Your task to perform on an android device: turn off translation in the chrome app Image 0: 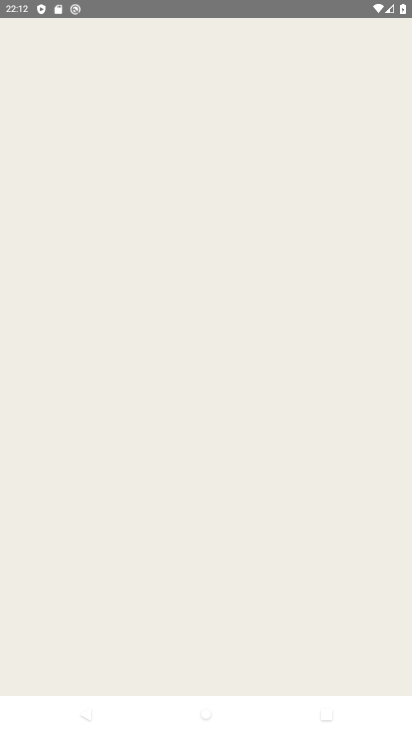
Step 0: press home button
Your task to perform on an android device: turn off translation in the chrome app Image 1: 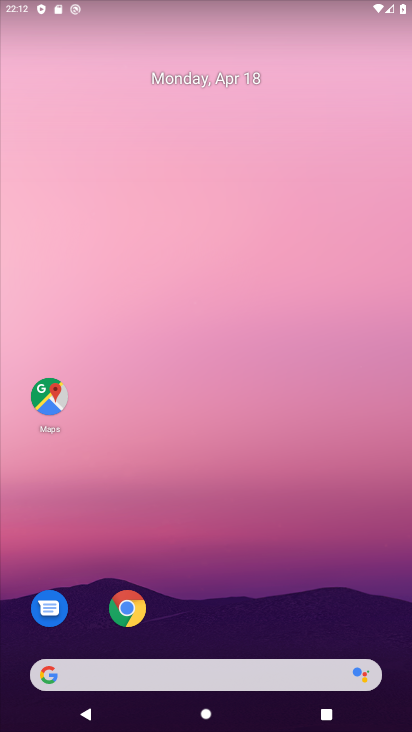
Step 1: click (125, 610)
Your task to perform on an android device: turn off translation in the chrome app Image 2: 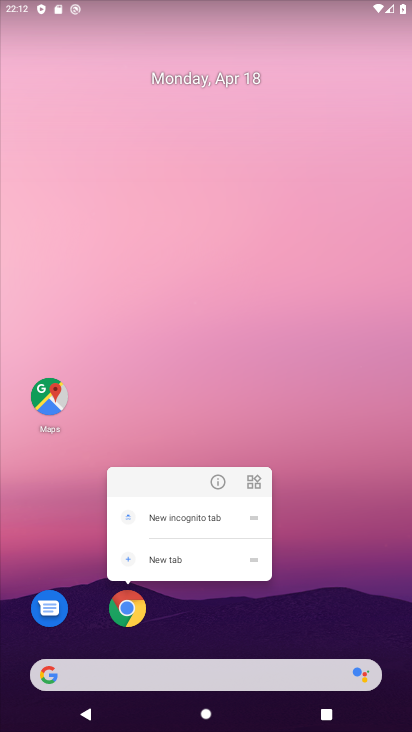
Step 2: click (125, 610)
Your task to perform on an android device: turn off translation in the chrome app Image 3: 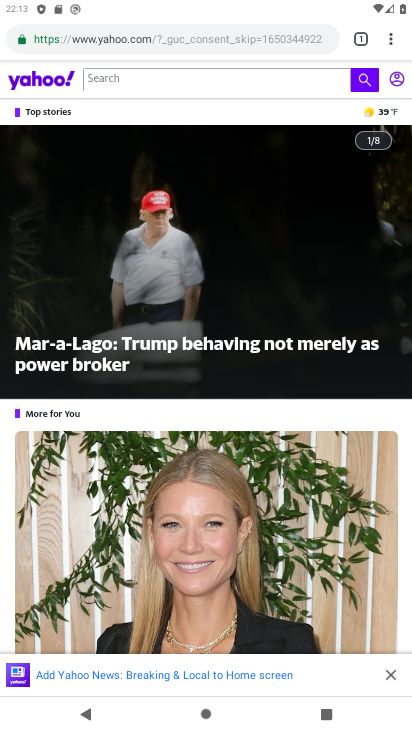
Step 3: click (390, 37)
Your task to perform on an android device: turn off translation in the chrome app Image 4: 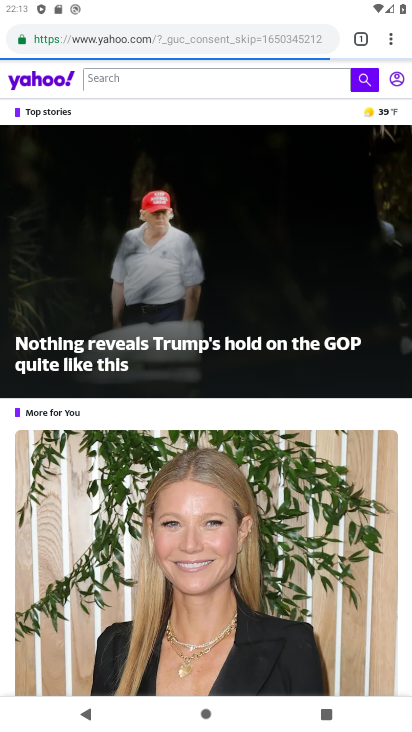
Step 4: click (390, 37)
Your task to perform on an android device: turn off translation in the chrome app Image 5: 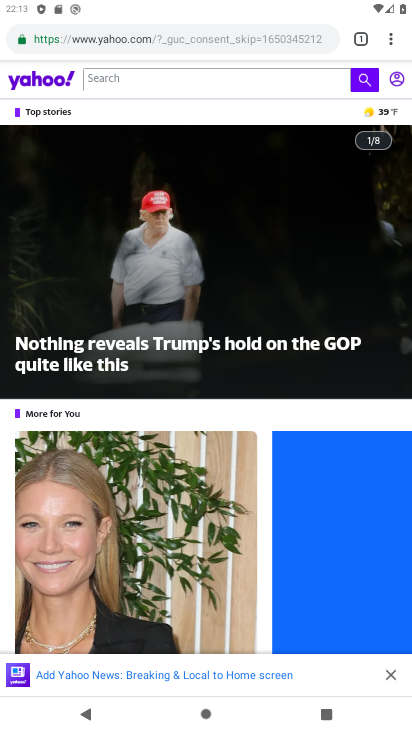
Step 5: drag from (390, 42) to (263, 519)
Your task to perform on an android device: turn off translation in the chrome app Image 6: 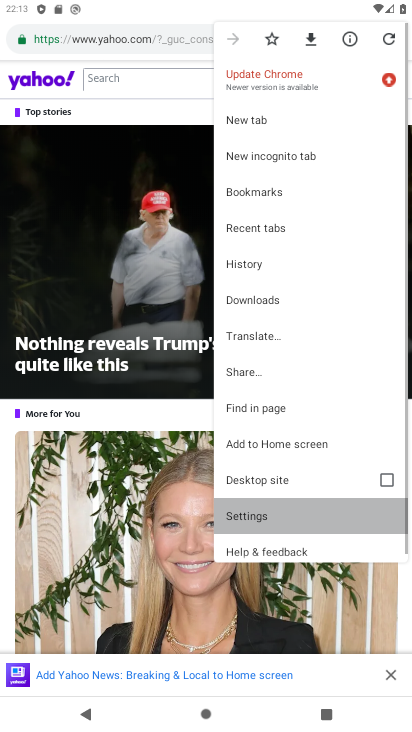
Step 6: click (267, 514)
Your task to perform on an android device: turn off translation in the chrome app Image 7: 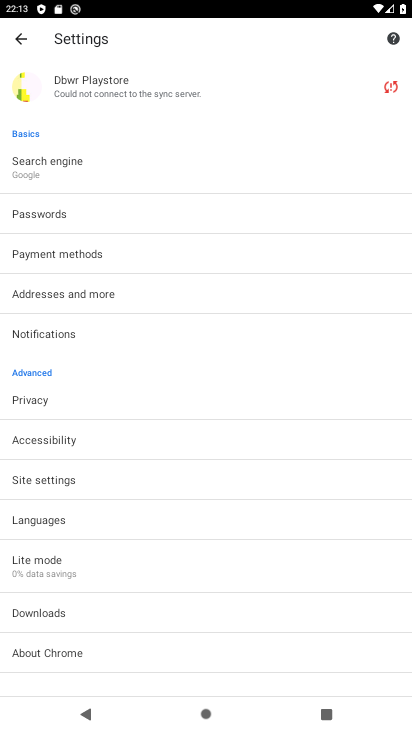
Step 7: click (45, 525)
Your task to perform on an android device: turn off translation in the chrome app Image 8: 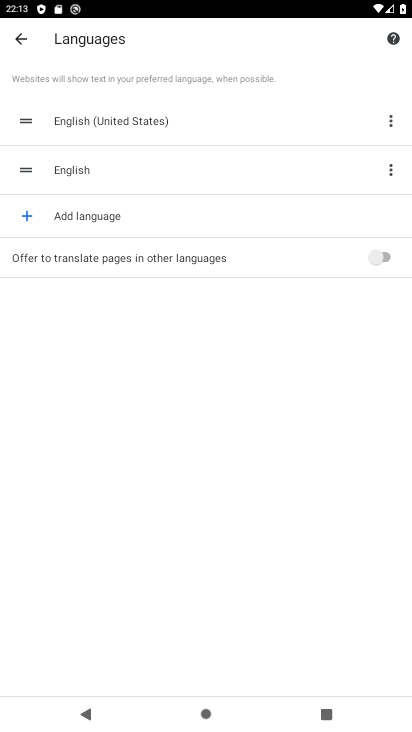
Step 8: task complete